Your task to perform on an android device: Open Youtube and go to "Your channel" Image 0: 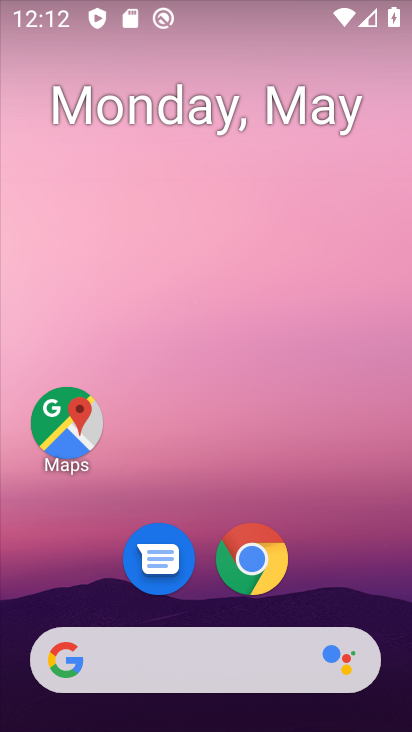
Step 0: drag from (282, 367) to (206, 24)
Your task to perform on an android device: Open Youtube and go to "Your channel" Image 1: 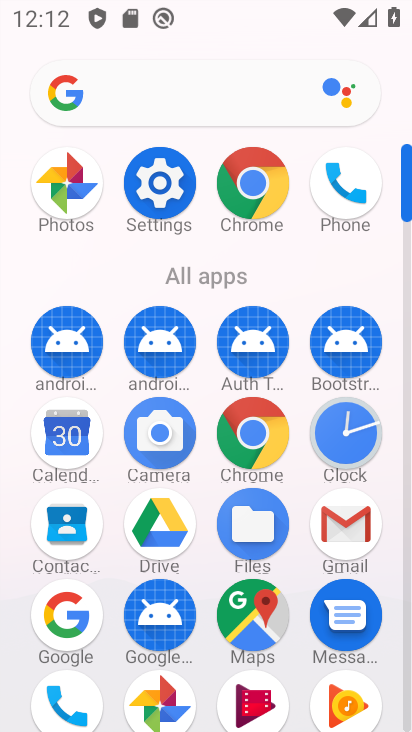
Step 1: drag from (15, 515) to (11, 235)
Your task to perform on an android device: Open Youtube and go to "Your channel" Image 2: 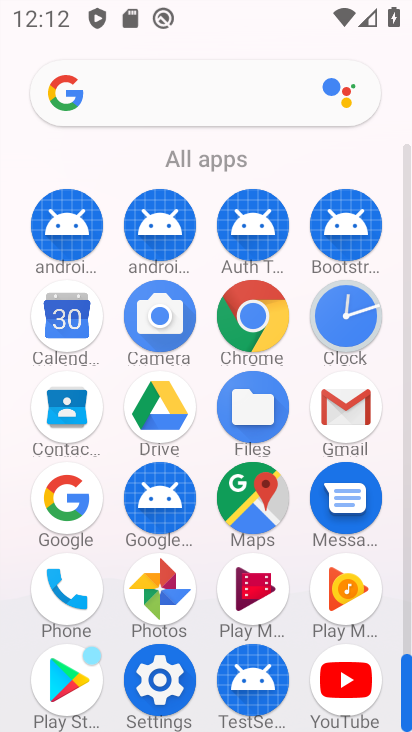
Step 2: click (347, 679)
Your task to perform on an android device: Open Youtube and go to "Your channel" Image 3: 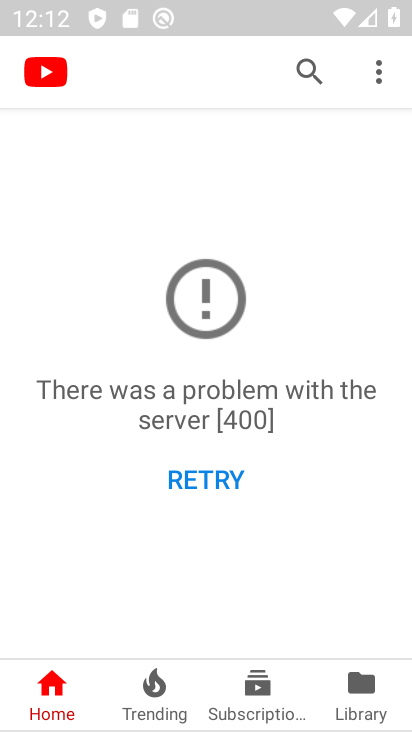
Step 3: click (350, 694)
Your task to perform on an android device: Open Youtube and go to "Your channel" Image 4: 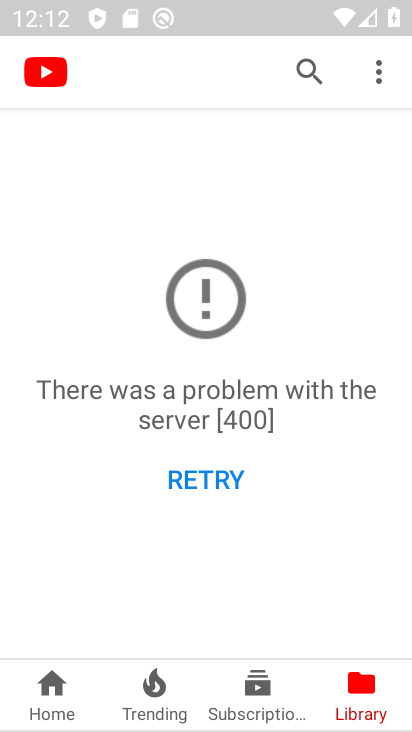
Step 4: task complete